Your task to perform on an android device: move a message to another label in the gmail app Image 0: 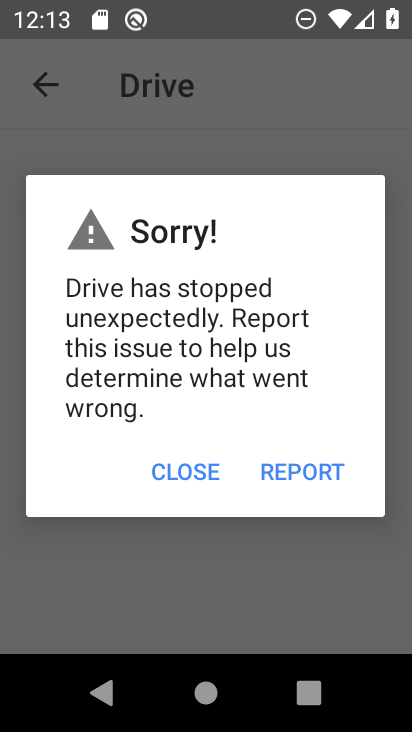
Step 0: press home button
Your task to perform on an android device: move a message to another label in the gmail app Image 1: 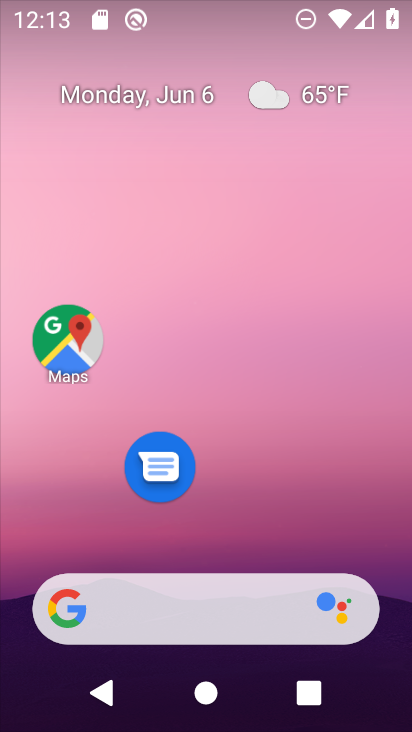
Step 1: drag from (386, 574) to (328, 148)
Your task to perform on an android device: move a message to another label in the gmail app Image 2: 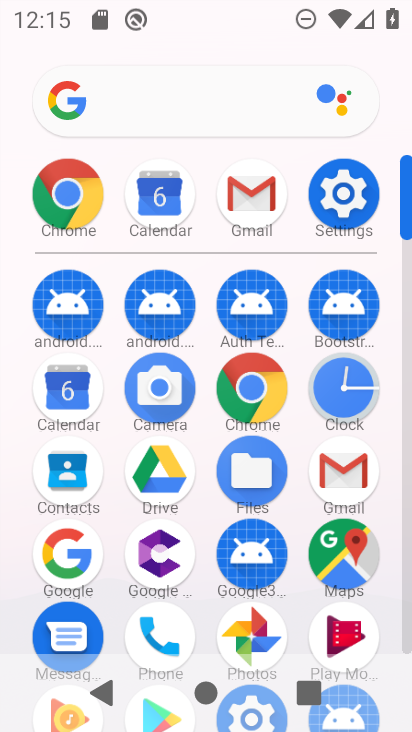
Step 2: click (247, 197)
Your task to perform on an android device: move a message to another label in the gmail app Image 3: 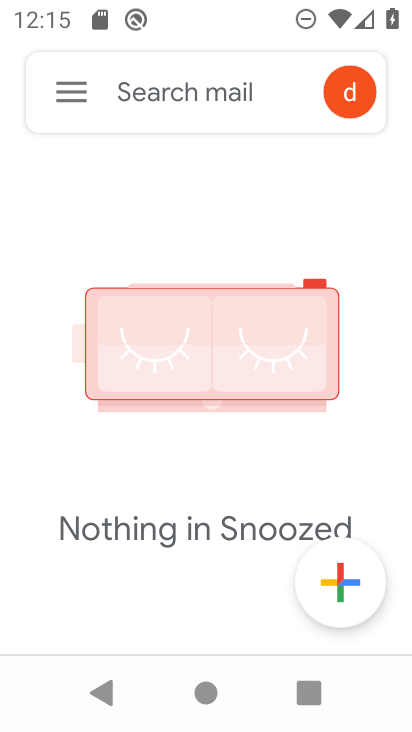
Step 3: task complete